Your task to perform on an android device: Play the latest video from the New York Times Image 0: 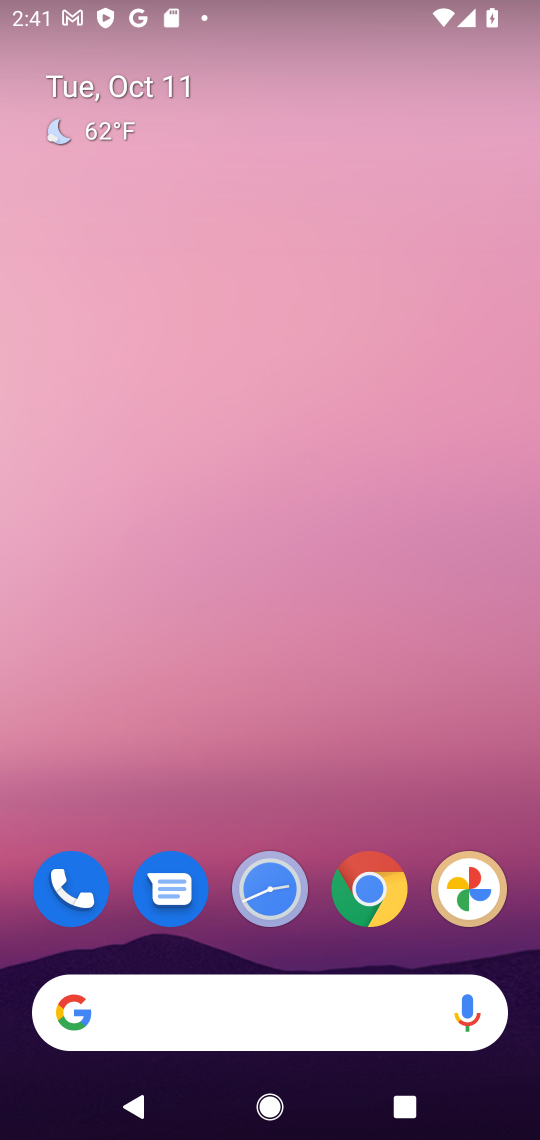
Step 0: drag from (199, 925) to (304, 371)
Your task to perform on an android device: Play the latest video from the New York Times Image 1: 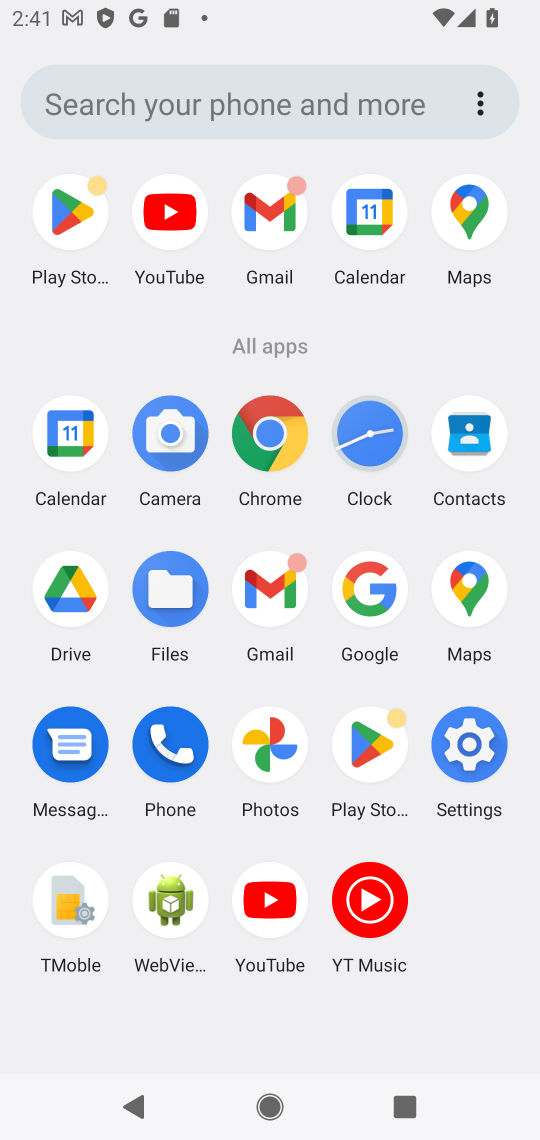
Step 1: click (366, 584)
Your task to perform on an android device: Play the latest video from the New York Times Image 2: 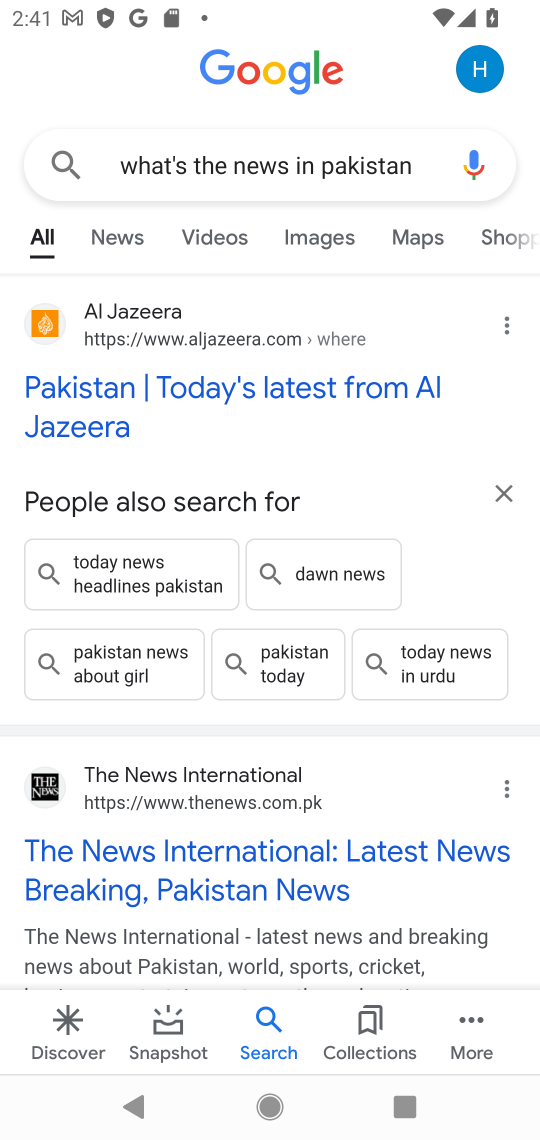
Step 2: click (226, 157)
Your task to perform on an android device: Play the latest video from the New York Times Image 3: 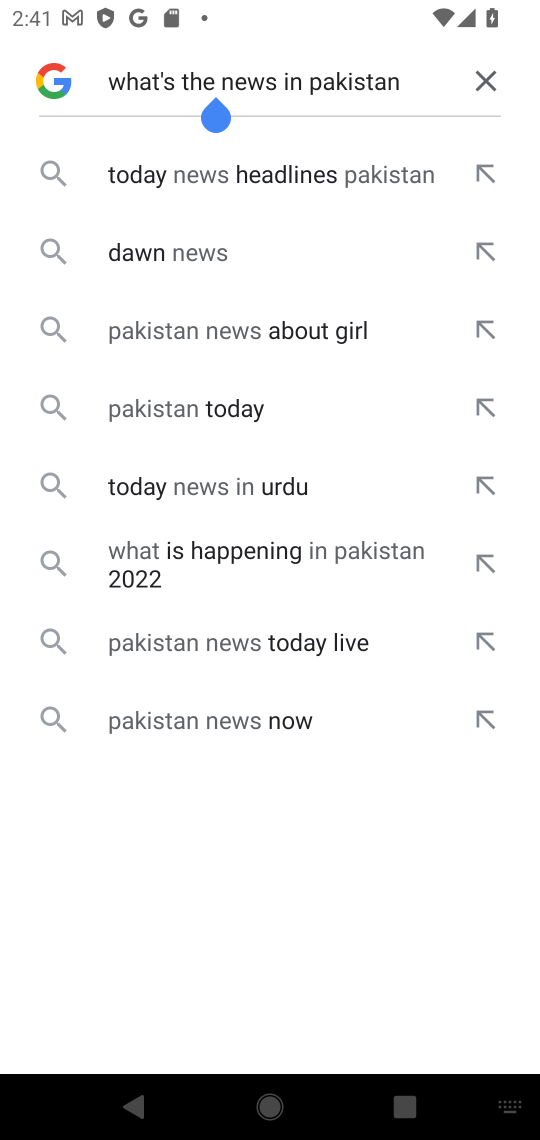
Step 3: click (472, 76)
Your task to perform on an android device: Play the latest video from the New York Times Image 4: 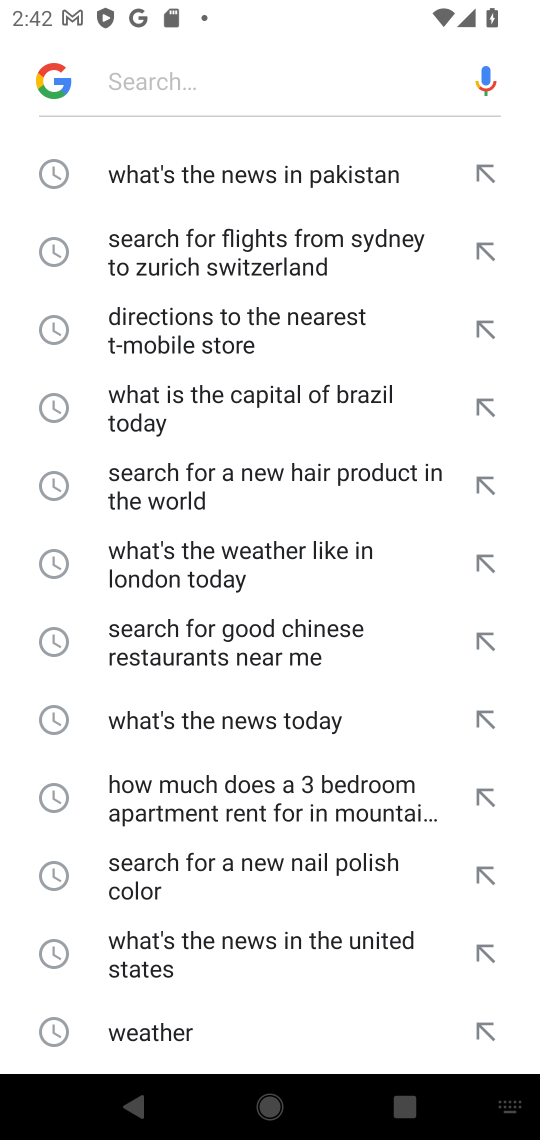
Step 4: click (250, 68)
Your task to perform on an android device: Play the latest video from the New York Times Image 5: 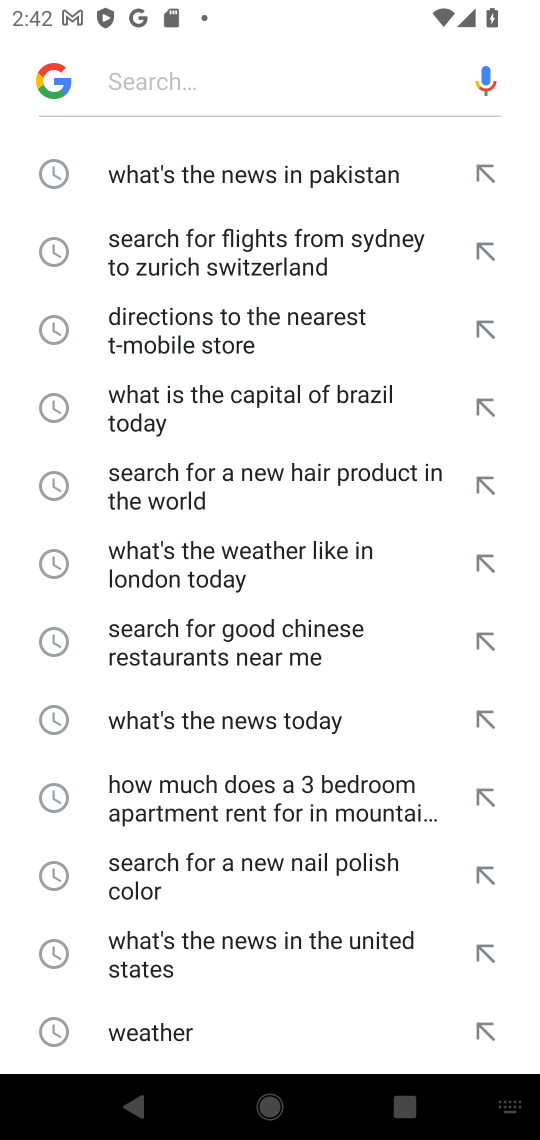
Step 5: type "Play the latest video from the New York Times "
Your task to perform on an android device: Play the latest video from the New York Times Image 6: 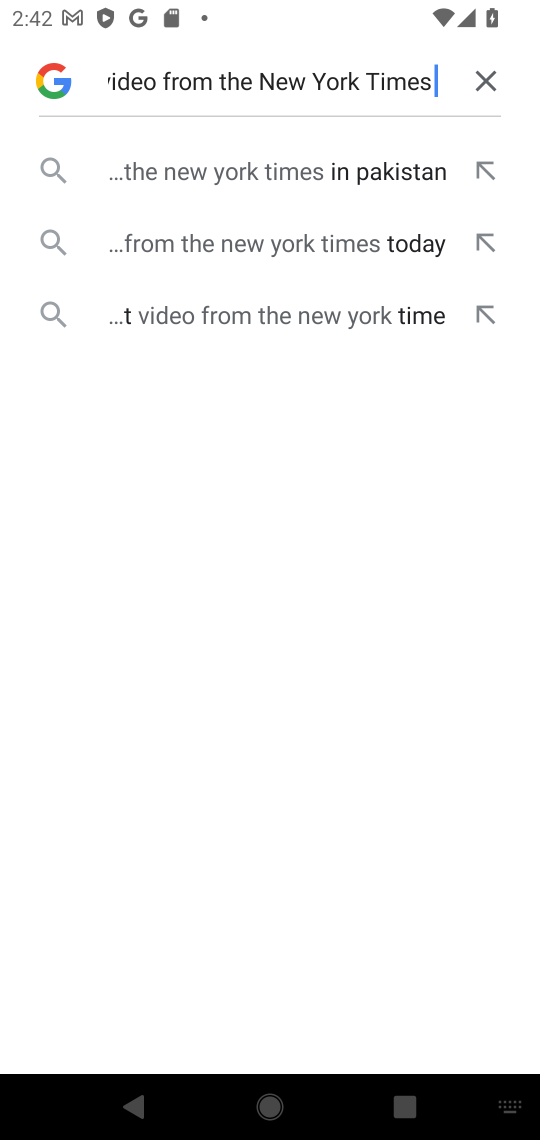
Step 6: click (302, 309)
Your task to perform on an android device: Play the latest video from the New York Times Image 7: 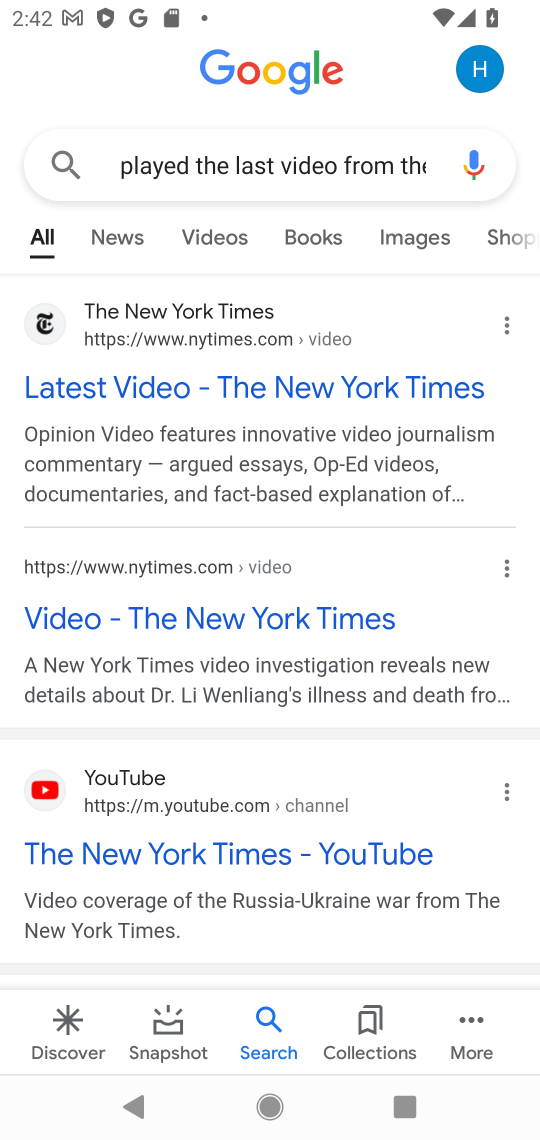
Step 7: click (300, 391)
Your task to perform on an android device: Play the latest video from the New York Times Image 8: 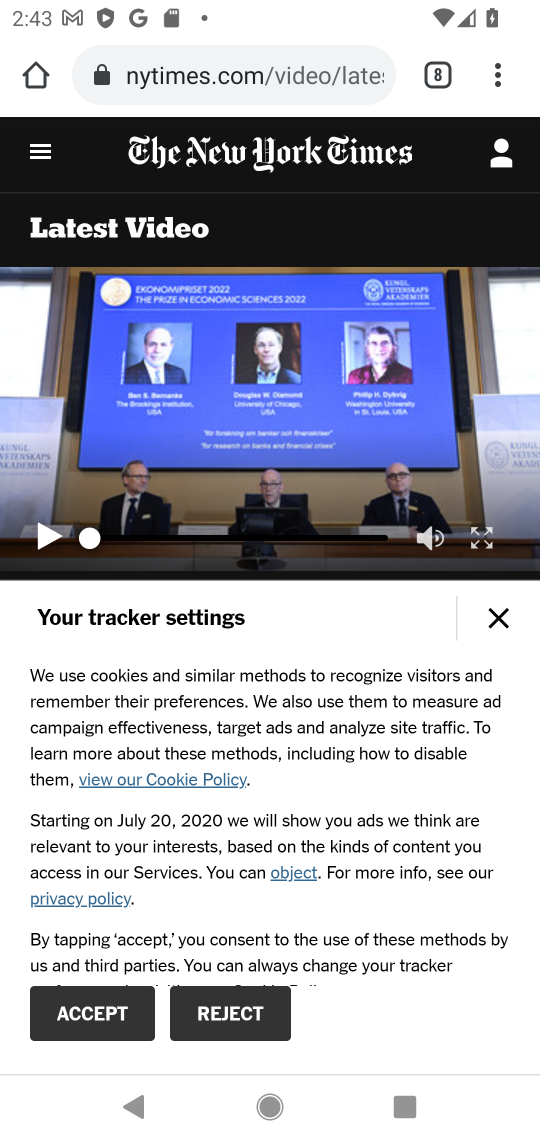
Step 8: click (63, 1018)
Your task to perform on an android device: Play the latest video from the New York Times Image 9: 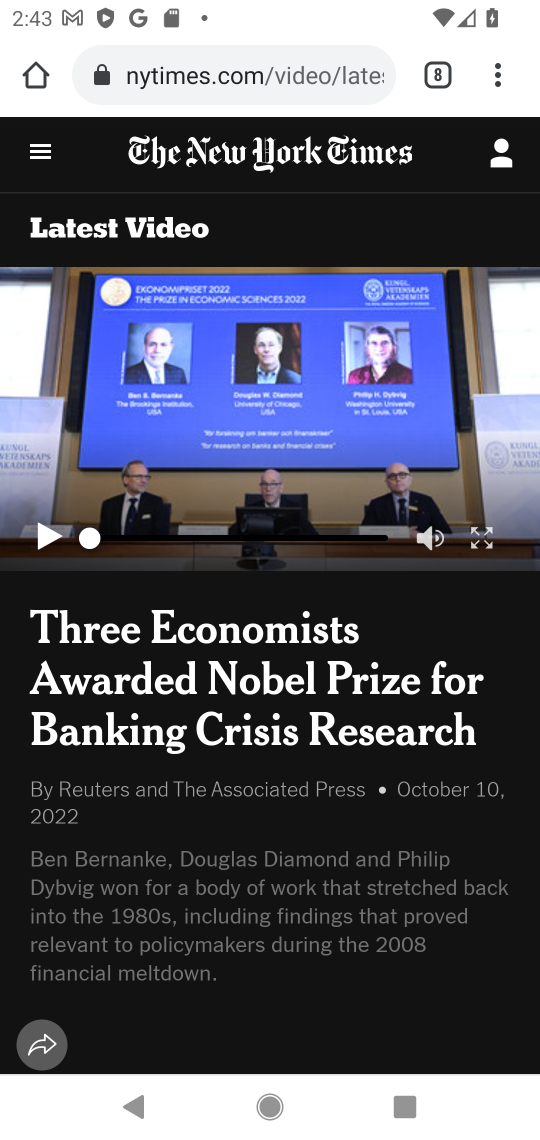
Step 9: task complete